Your task to perform on an android device: Open ESPN.com Image 0: 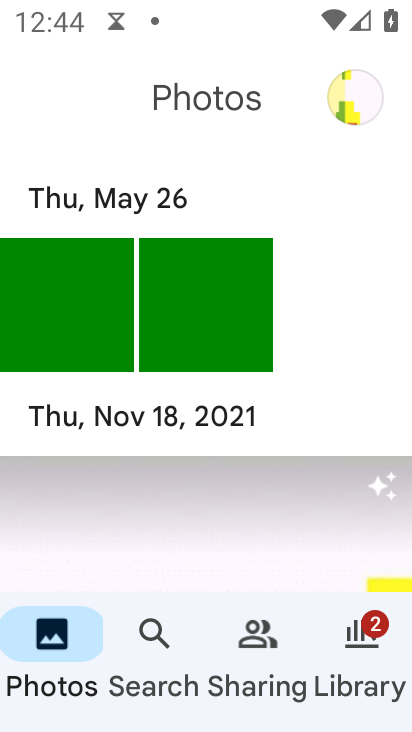
Step 0: press home button
Your task to perform on an android device: Open ESPN.com Image 1: 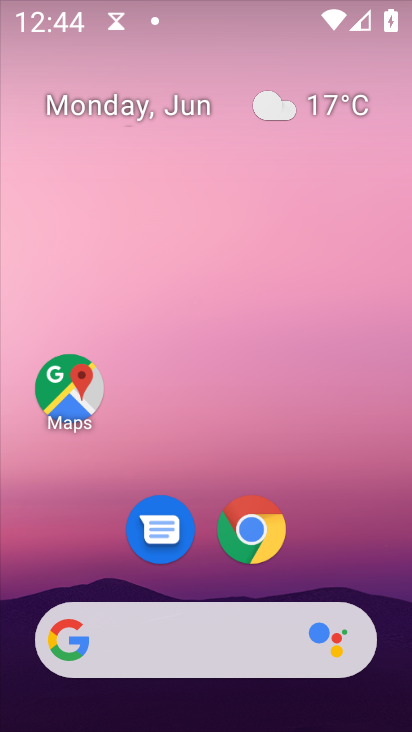
Step 1: drag from (368, 492) to (270, 18)
Your task to perform on an android device: Open ESPN.com Image 2: 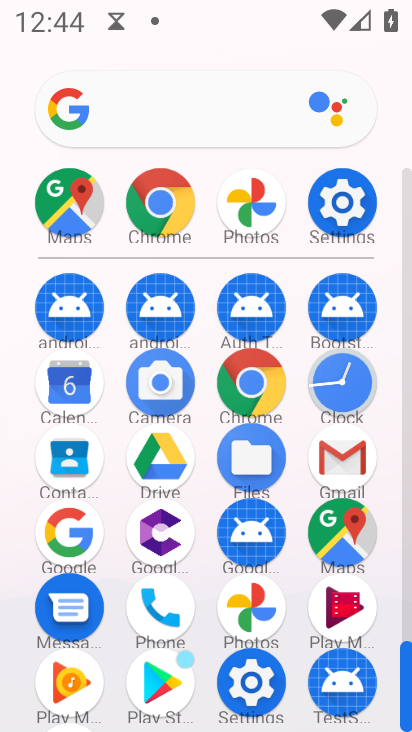
Step 2: click (162, 189)
Your task to perform on an android device: Open ESPN.com Image 3: 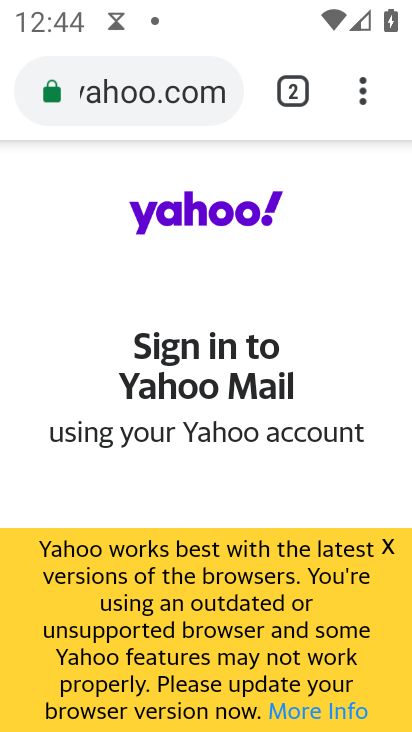
Step 3: click (96, 97)
Your task to perform on an android device: Open ESPN.com Image 4: 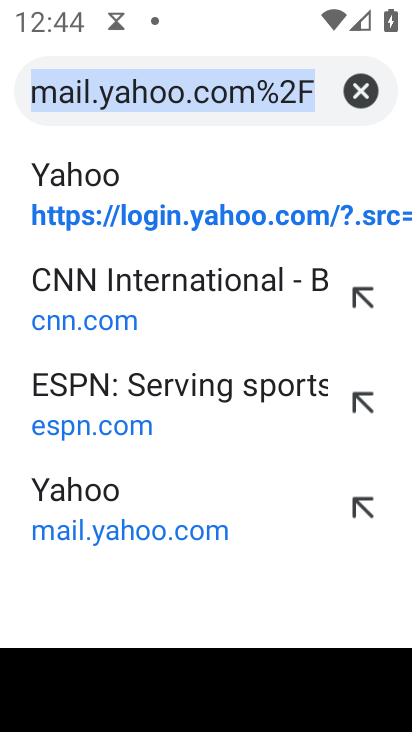
Step 4: click (357, 99)
Your task to perform on an android device: Open ESPN.com Image 5: 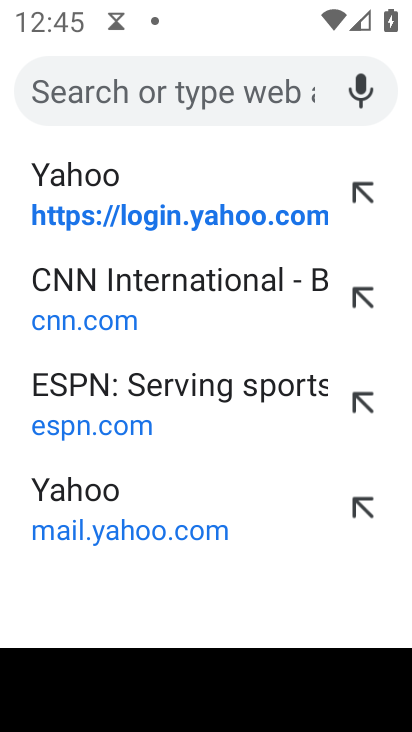
Step 5: type "espn"
Your task to perform on an android device: Open ESPN.com Image 6: 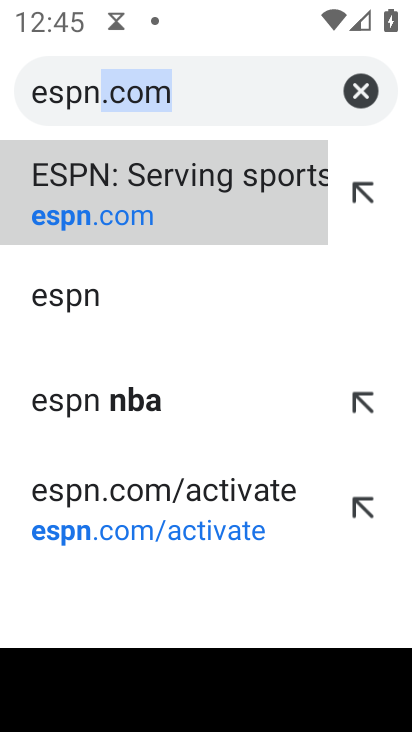
Step 6: click (94, 211)
Your task to perform on an android device: Open ESPN.com Image 7: 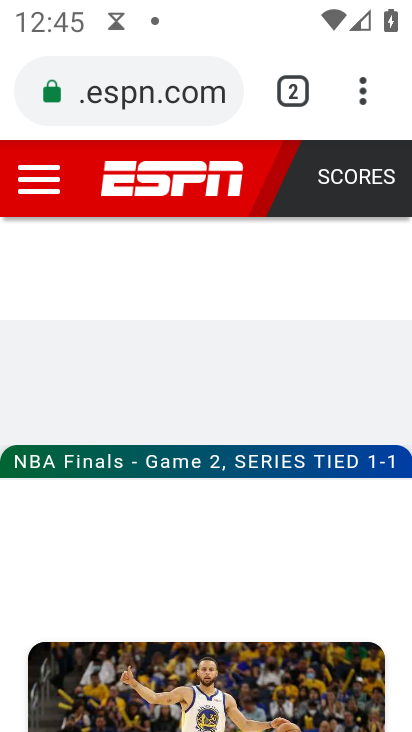
Step 7: task complete